Your task to perform on an android device: delete the emails in spam in the gmail app Image 0: 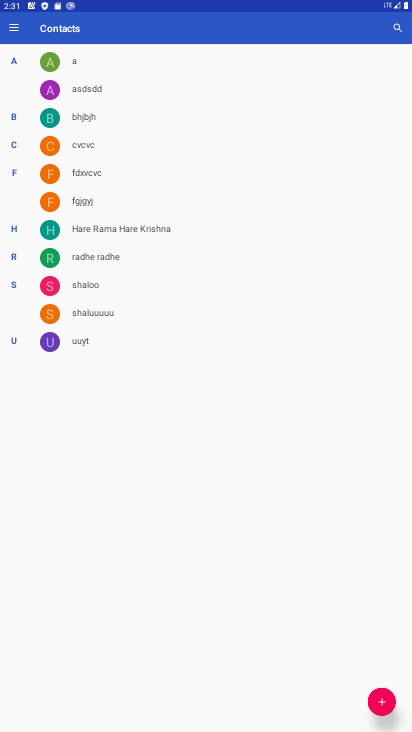
Step 0: press home button
Your task to perform on an android device: delete the emails in spam in the gmail app Image 1: 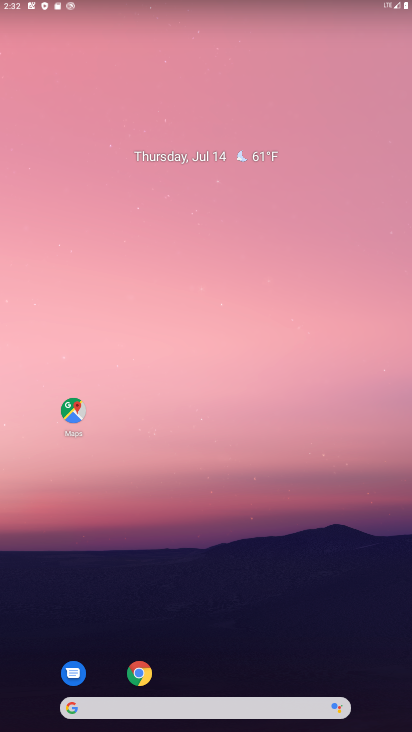
Step 1: drag from (237, 641) to (234, 41)
Your task to perform on an android device: delete the emails in spam in the gmail app Image 2: 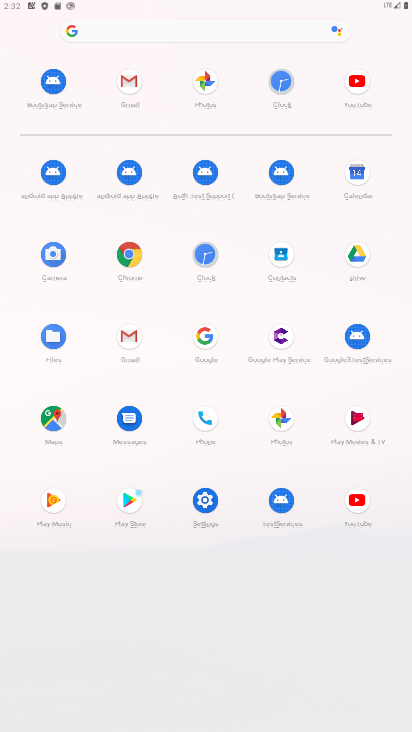
Step 2: click (129, 81)
Your task to perform on an android device: delete the emails in spam in the gmail app Image 3: 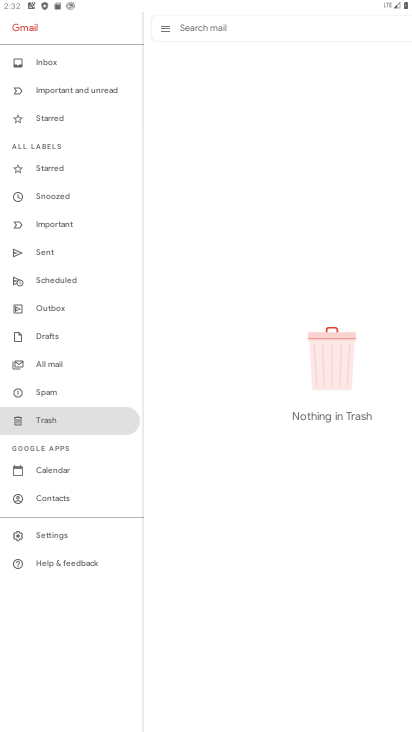
Step 3: click (54, 342)
Your task to perform on an android device: delete the emails in spam in the gmail app Image 4: 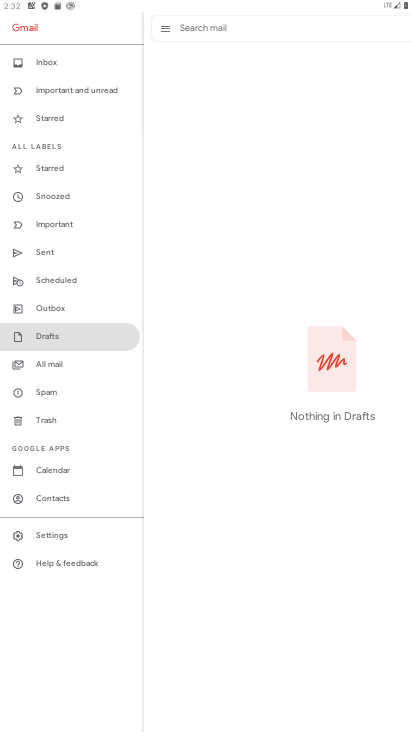
Step 4: click (53, 388)
Your task to perform on an android device: delete the emails in spam in the gmail app Image 5: 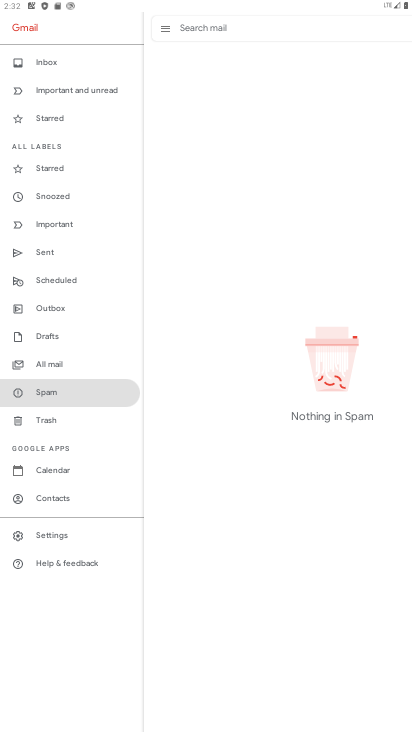
Step 5: task complete